Your task to perform on an android device: turn on notifications settings in the gmail app Image 0: 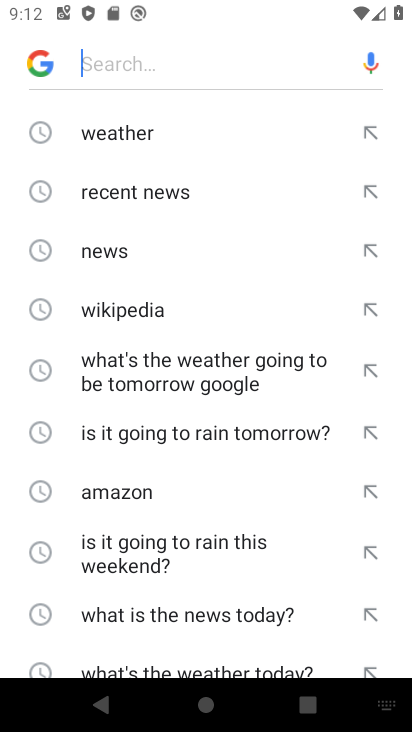
Step 0: press home button
Your task to perform on an android device: turn on notifications settings in the gmail app Image 1: 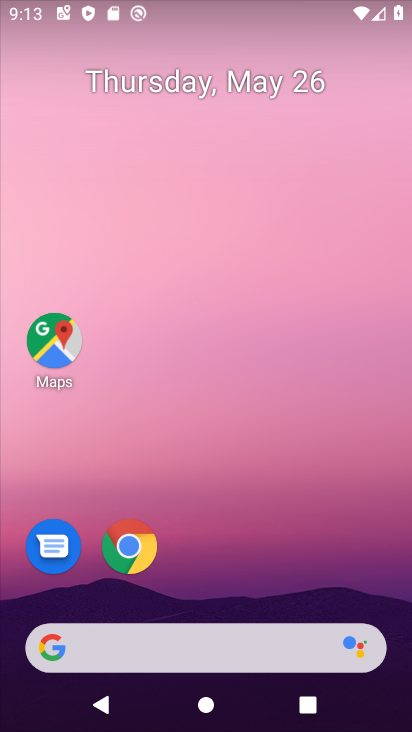
Step 1: drag from (208, 565) to (208, 127)
Your task to perform on an android device: turn on notifications settings in the gmail app Image 2: 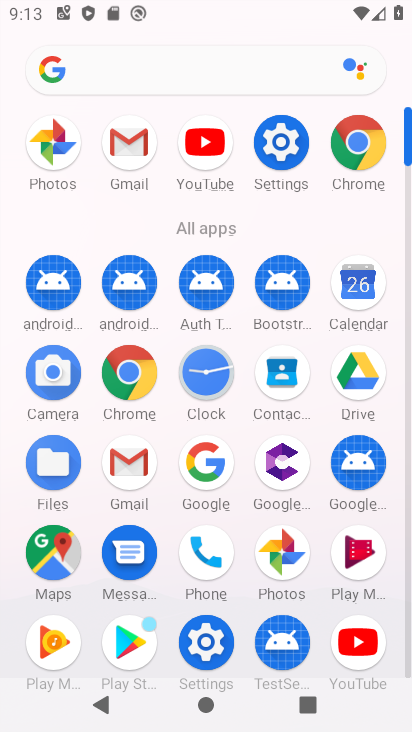
Step 2: click (143, 143)
Your task to perform on an android device: turn on notifications settings in the gmail app Image 3: 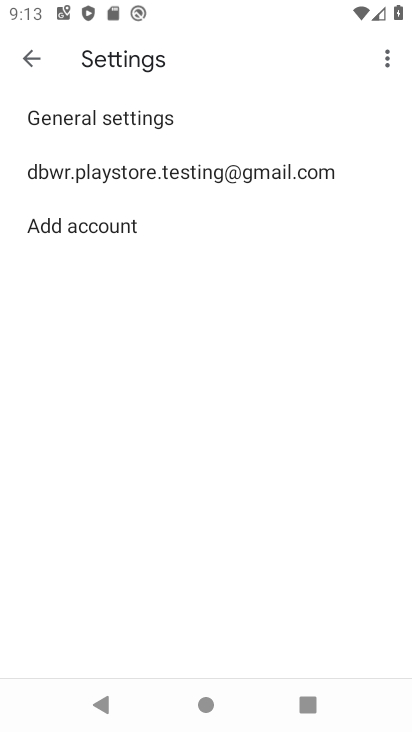
Step 3: click (148, 171)
Your task to perform on an android device: turn on notifications settings in the gmail app Image 4: 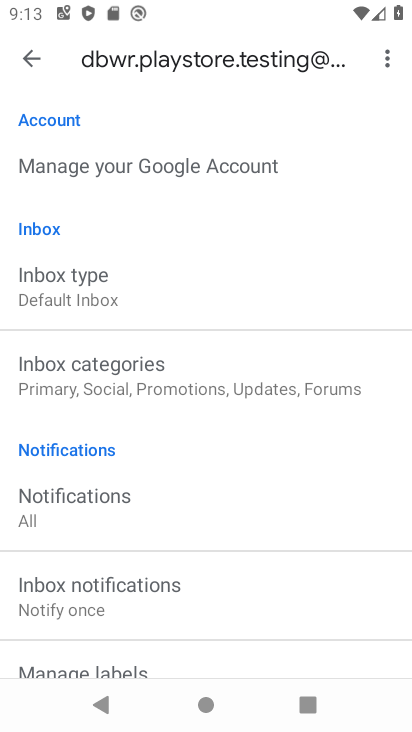
Step 4: drag from (142, 547) to (179, 182)
Your task to perform on an android device: turn on notifications settings in the gmail app Image 5: 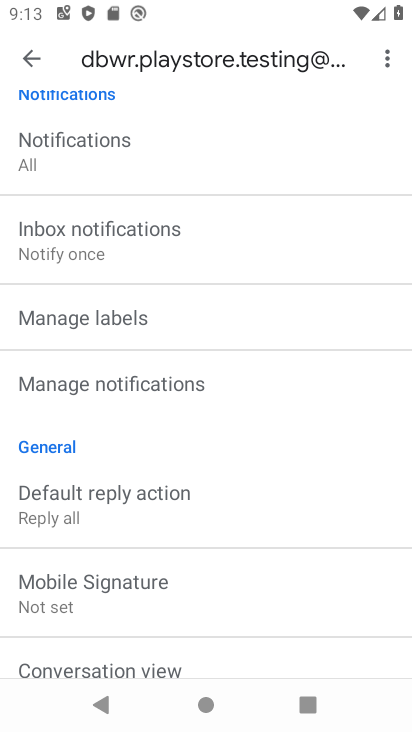
Step 5: click (169, 382)
Your task to perform on an android device: turn on notifications settings in the gmail app Image 6: 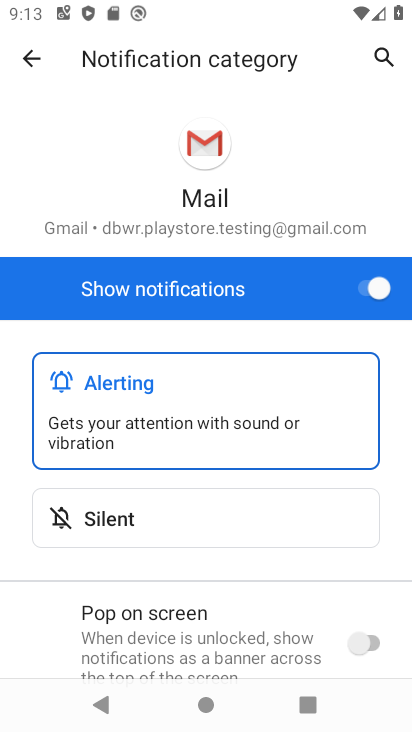
Step 6: drag from (356, 527) to (337, 324)
Your task to perform on an android device: turn on notifications settings in the gmail app Image 7: 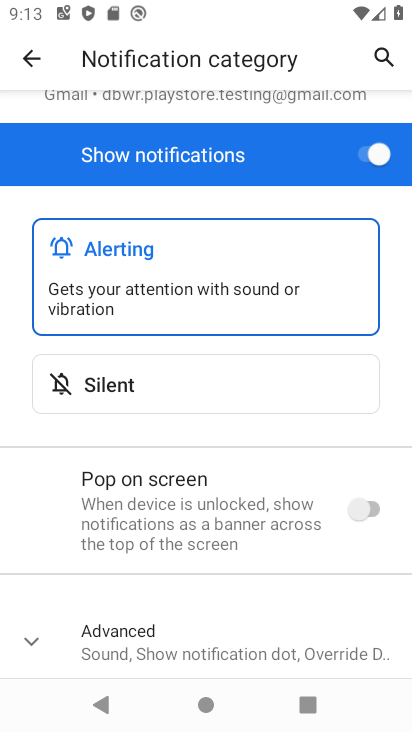
Step 7: click (364, 494)
Your task to perform on an android device: turn on notifications settings in the gmail app Image 8: 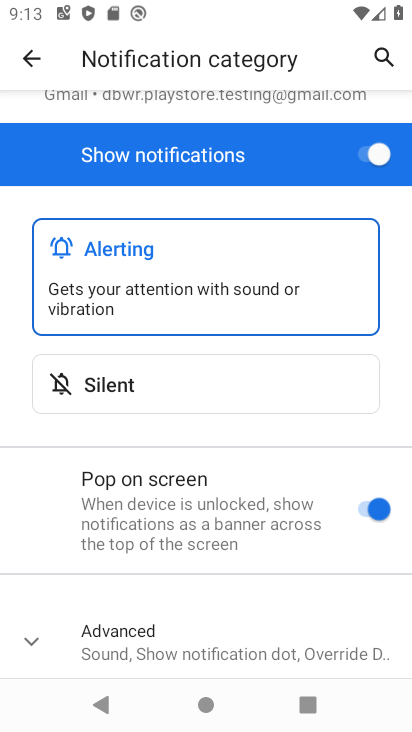
Step 8: task complete